Your task to perform on an android device: Open Maps and search for coffee Image 0: 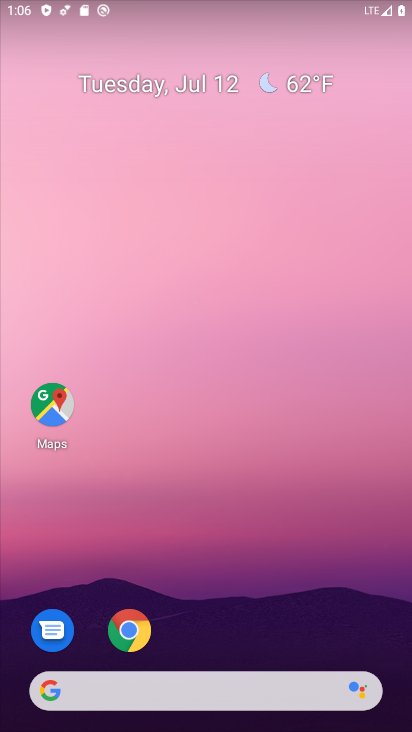
Step 0: drag from (233, 640) to (273, 183)
Your task to perform on an android device: Open Maps and search for coffee Image 1: 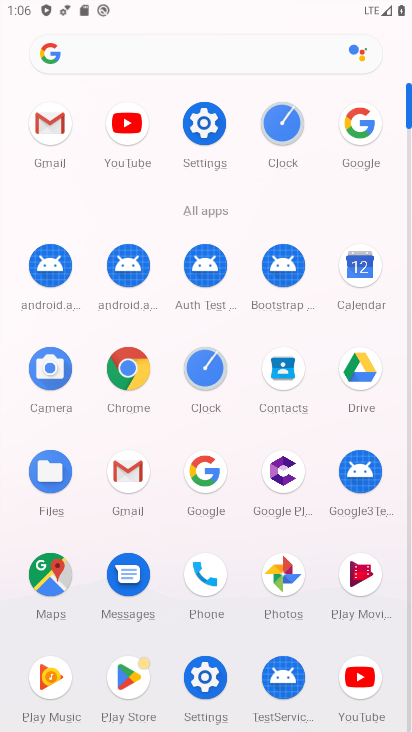
Step 1: click (51, 574)
Your task to perform on an android device: Open Maps and search for coffee Image 2: 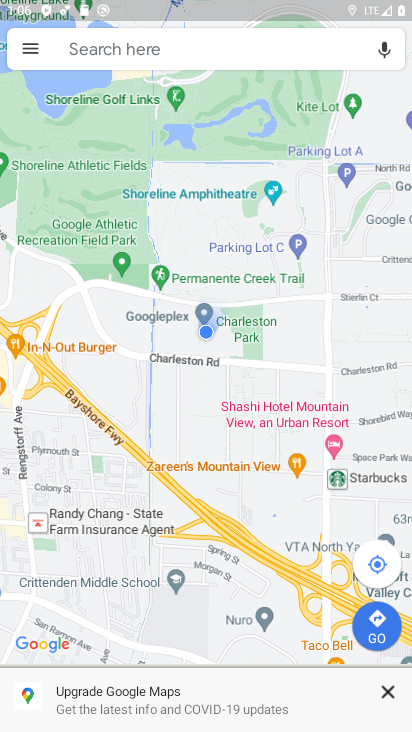
Step 2: click (164, 59)
Your task to perform on an android device: Open Maps and search for coffee Image 3: 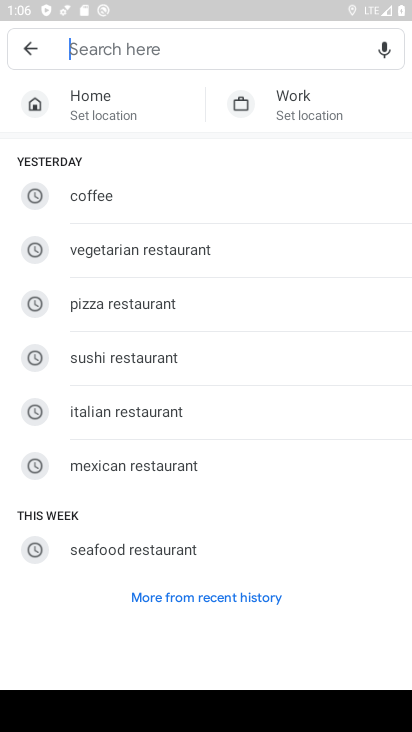
Step 3: click (103, 201)
Your task to perform on an android device: Open Maps and search for coffee Image 4: 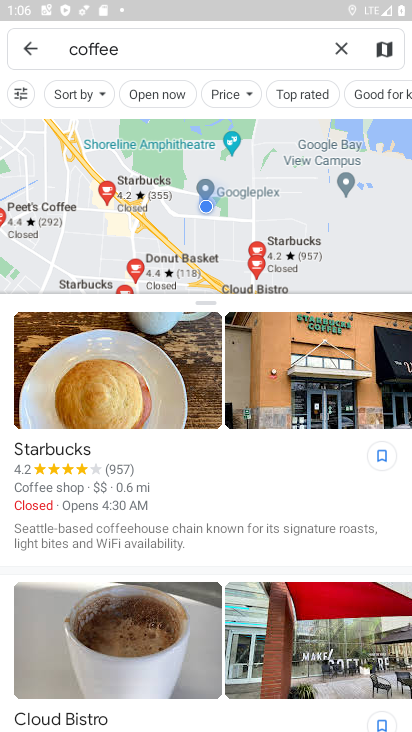
Step 4: task complete